Your task to perform on an android device: Go to display settings Image 0: 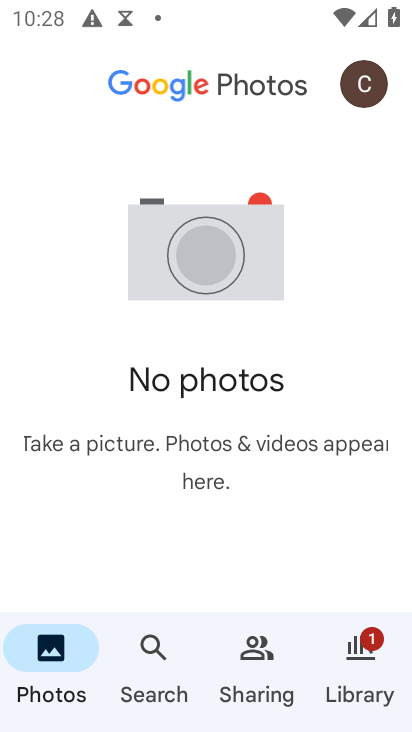
Step 0: press home button
Your task to perform on an android device: Go to display settings Image 1: 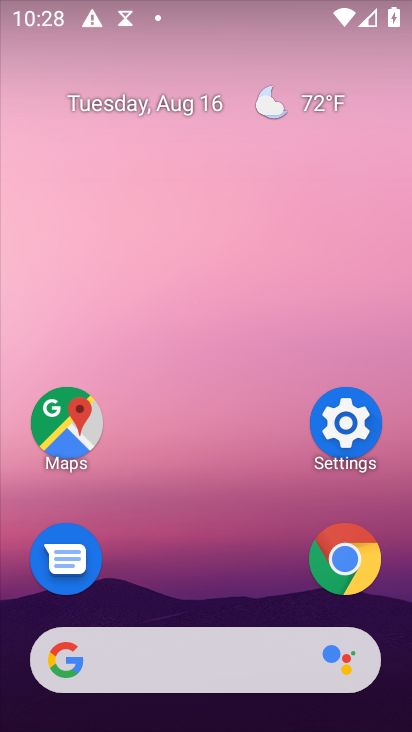
Step 1: click (332, 411)
Your task to perform on an android device: Go to display settings Image 2: 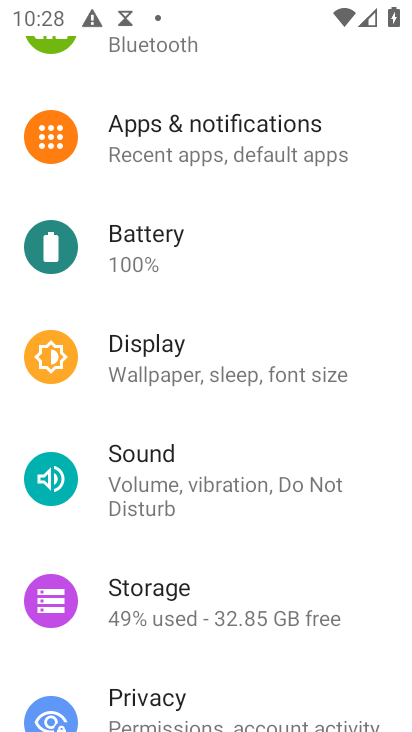
Step 2: click (161, 345)
Your task to perform on an android device: Go to display settings Image 3: 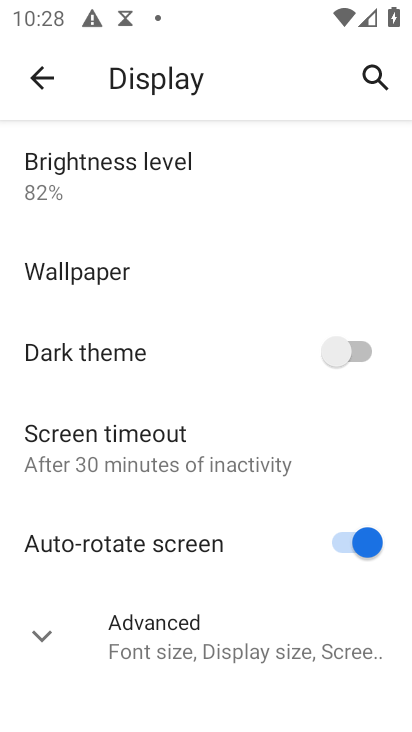
Step 3: task complete